Your task to perform on an android device: set default search engine in the chrome app Image 0: 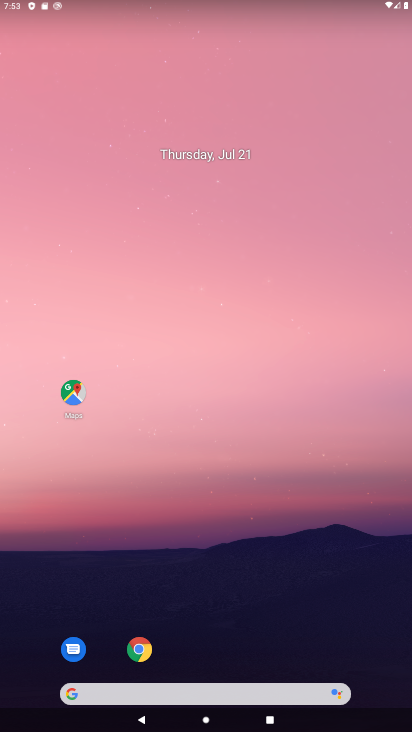
Step 0: drag from (238, 627) to (224, 12)
Your task to perform on an android device: set default search engine in the chrome app Image 1: 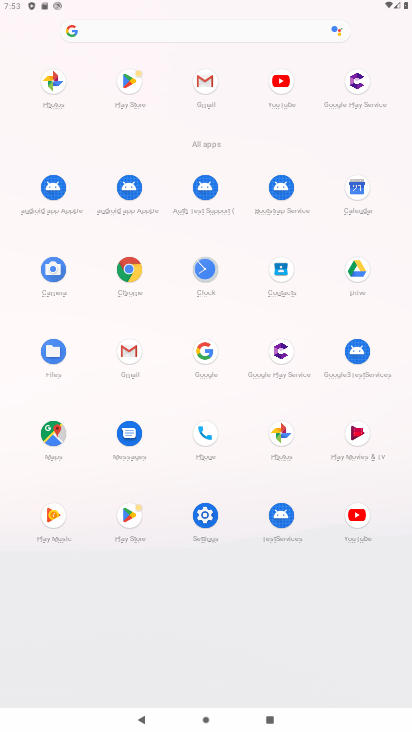
Step 1: click (123, 277)
Your task to perform on an android device: set default search engine in the chrome app Image 2: 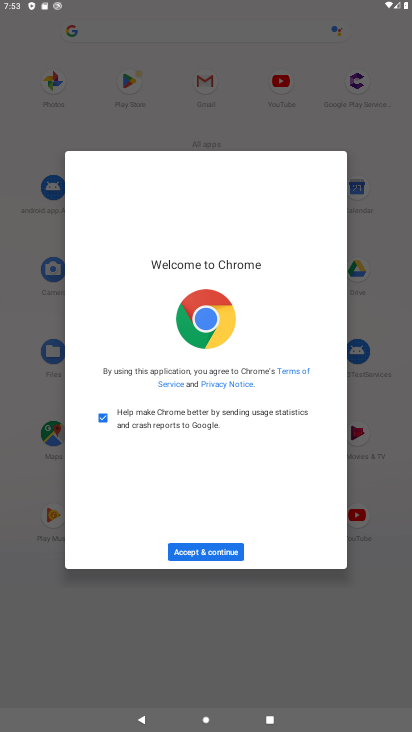
Step 2: click (204, 558)
Your task to perform on an android device: set default search engine in the chrome app Image 3: 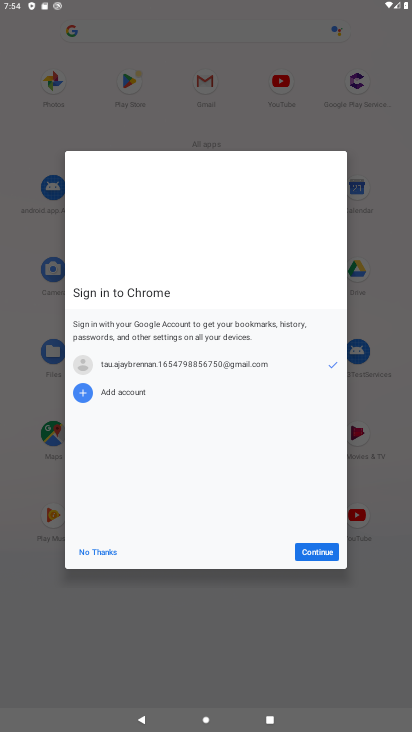
Step 3: click (325, 548)
Your task to perform on an android device: set default search engine in the chrome app Image 4: 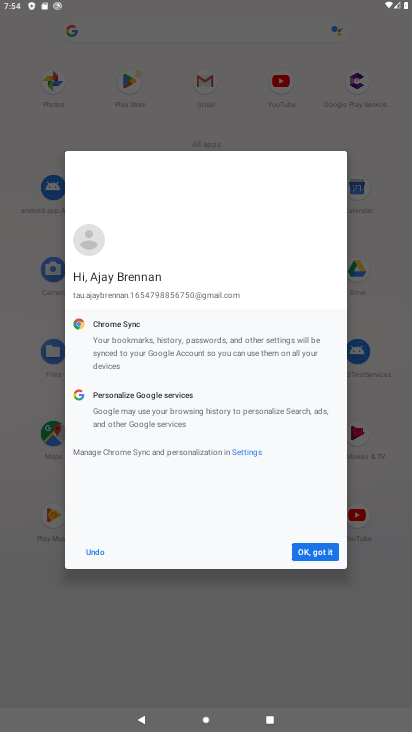
Step 4: click (324, 553)
Your task to perform on an android device: set default search engine in the chrome app Image 5: 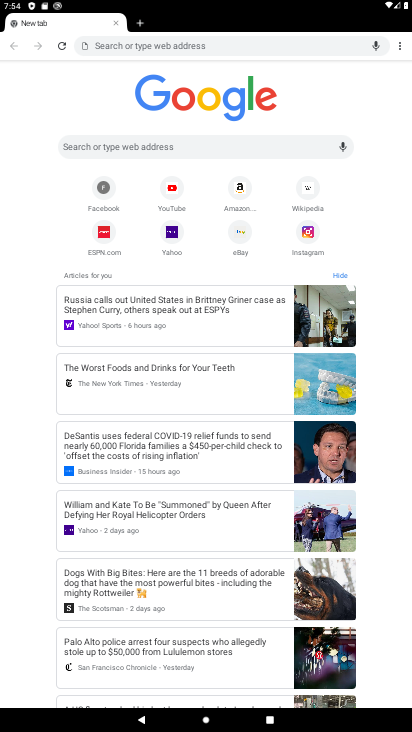
Step 5: click (394, 43)
Your task to perform on an android device: set default search engine in the chrome app Image 6: 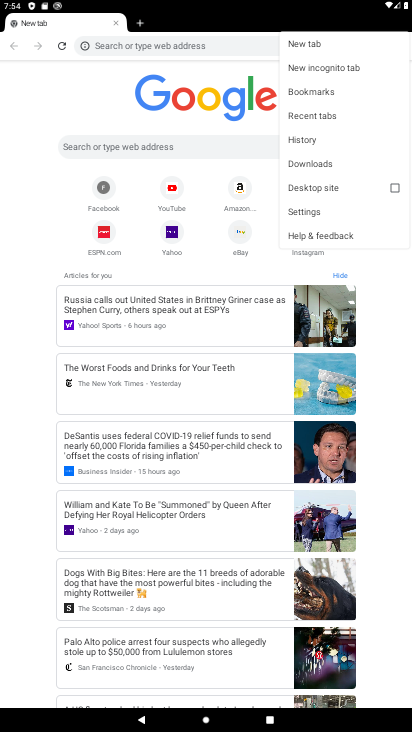
Step 6: click (312, 217)
Your task to perform on an android device: set default search engine in the chrome app Image 7: 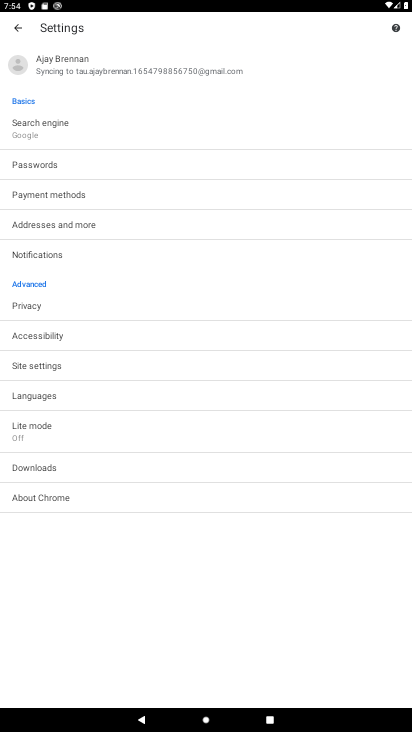
Step 7: click (47, 123)
Your task to perform on an android device: set default search engine in the chrome app Image 8: 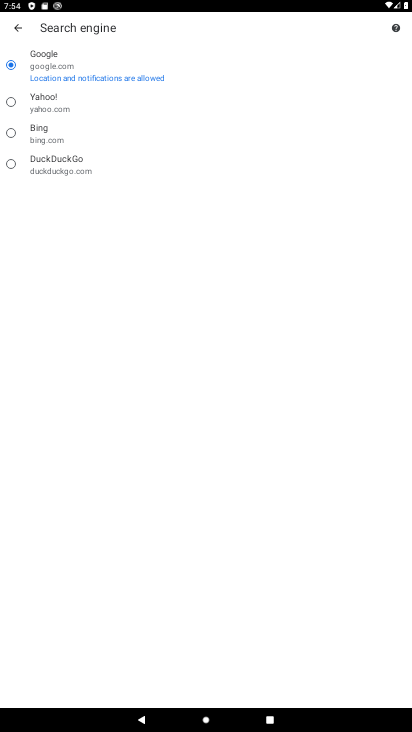
Step 8: task complete